Your task to perform on an android device: delete a single message in the gmail app Image 0: 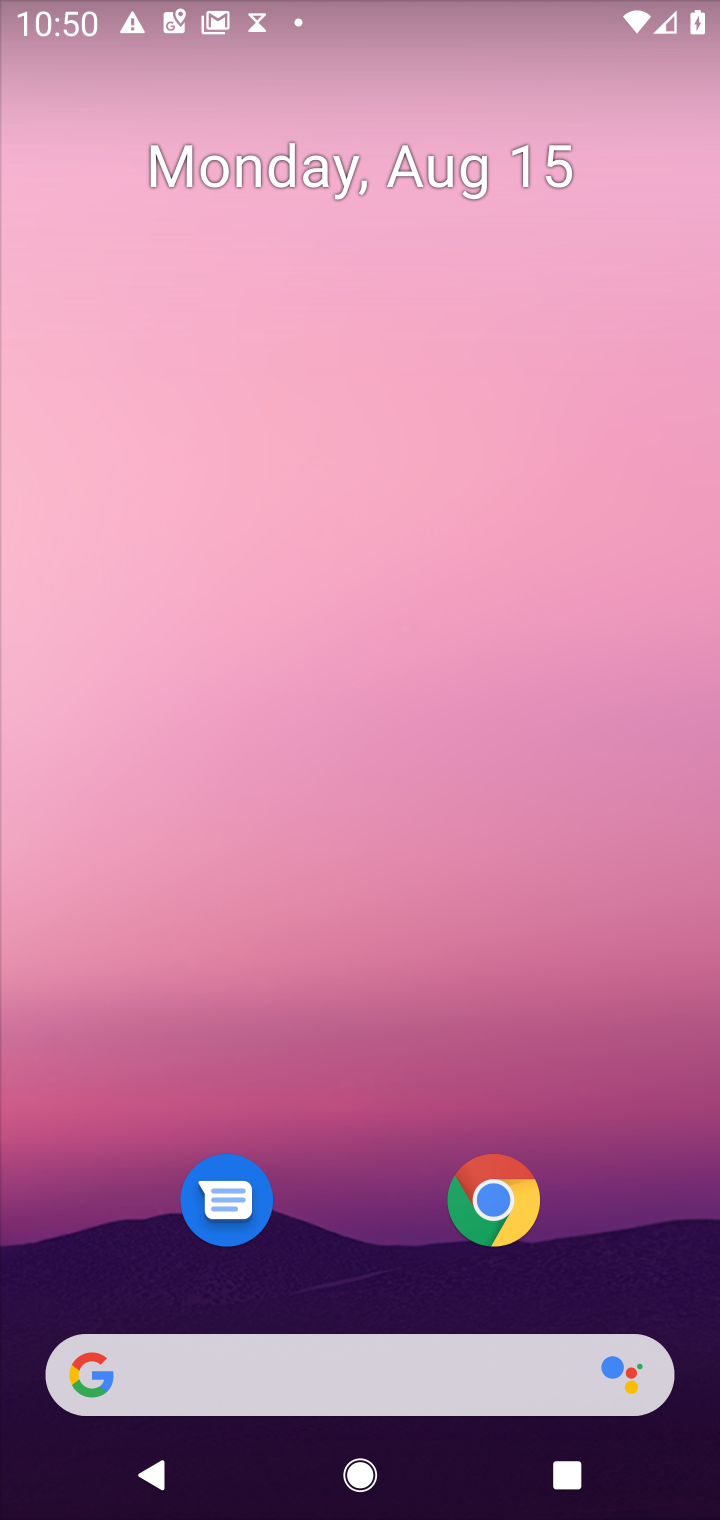
Step 0: drag from (322, 1110) to (291, 302)
Your task to perform on an android device: delete a single message in the gmail app Image 1: 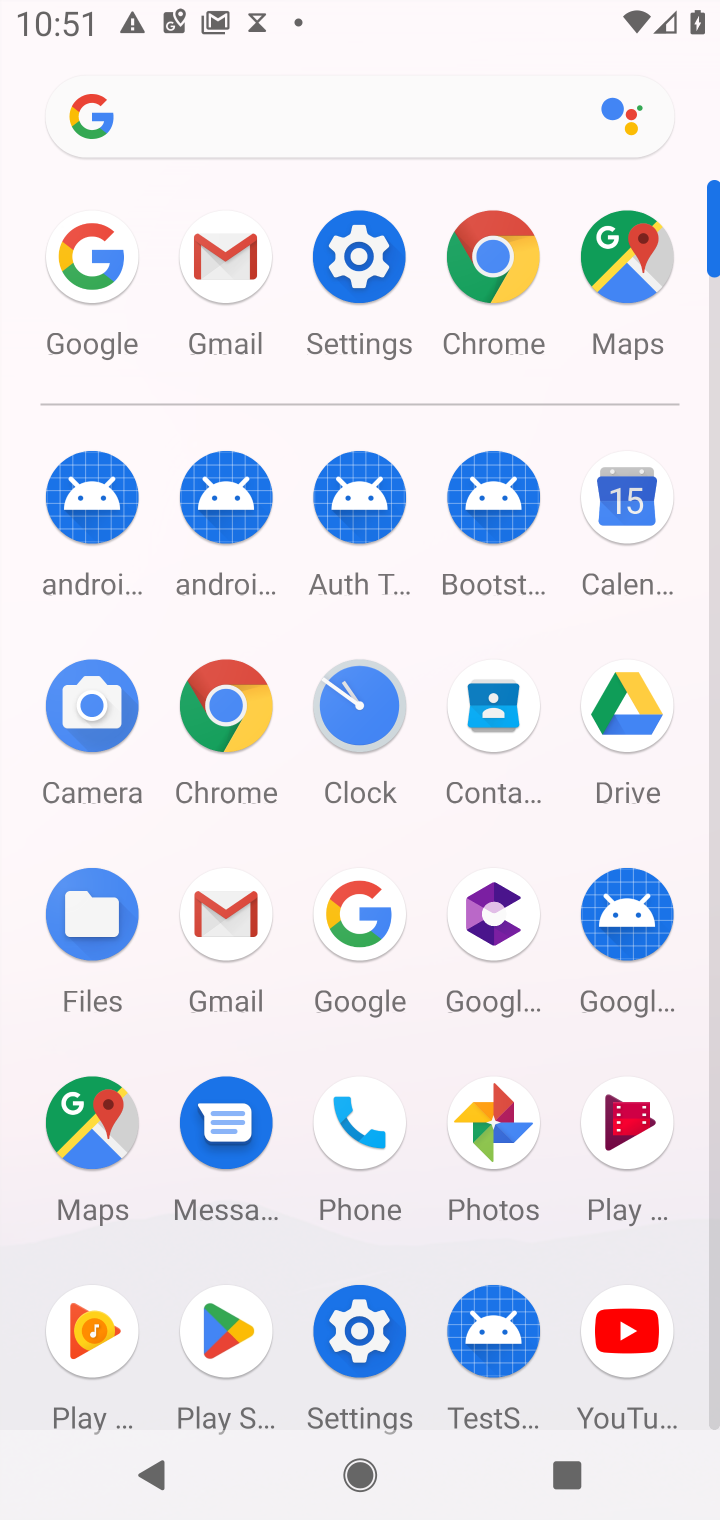
Step 1: click (206, 247)
Your task to perform on an android device: delete a single message in the gmail app Image 2: 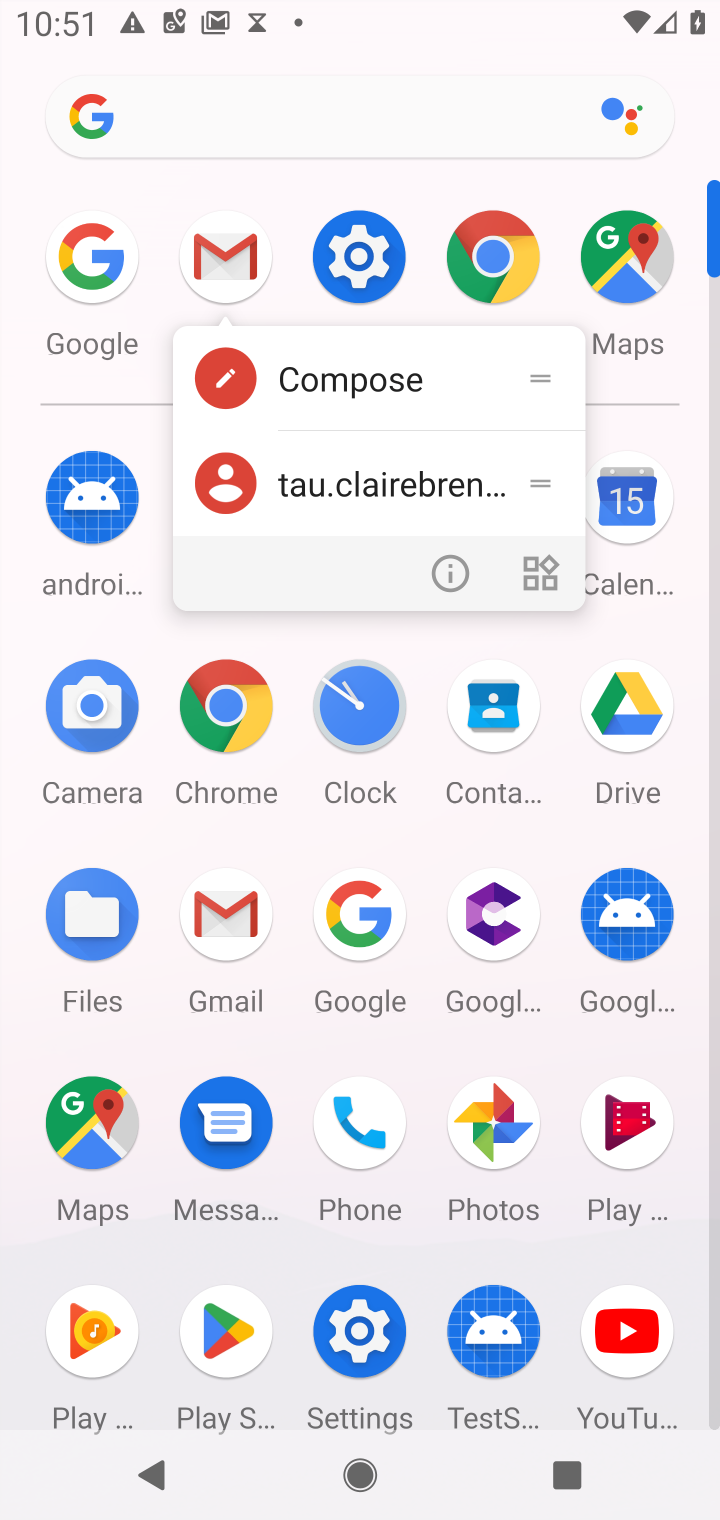
Step 2: click (248, 243)
Your task to perform on an android device: delete a single message in the gmail app Image 3: 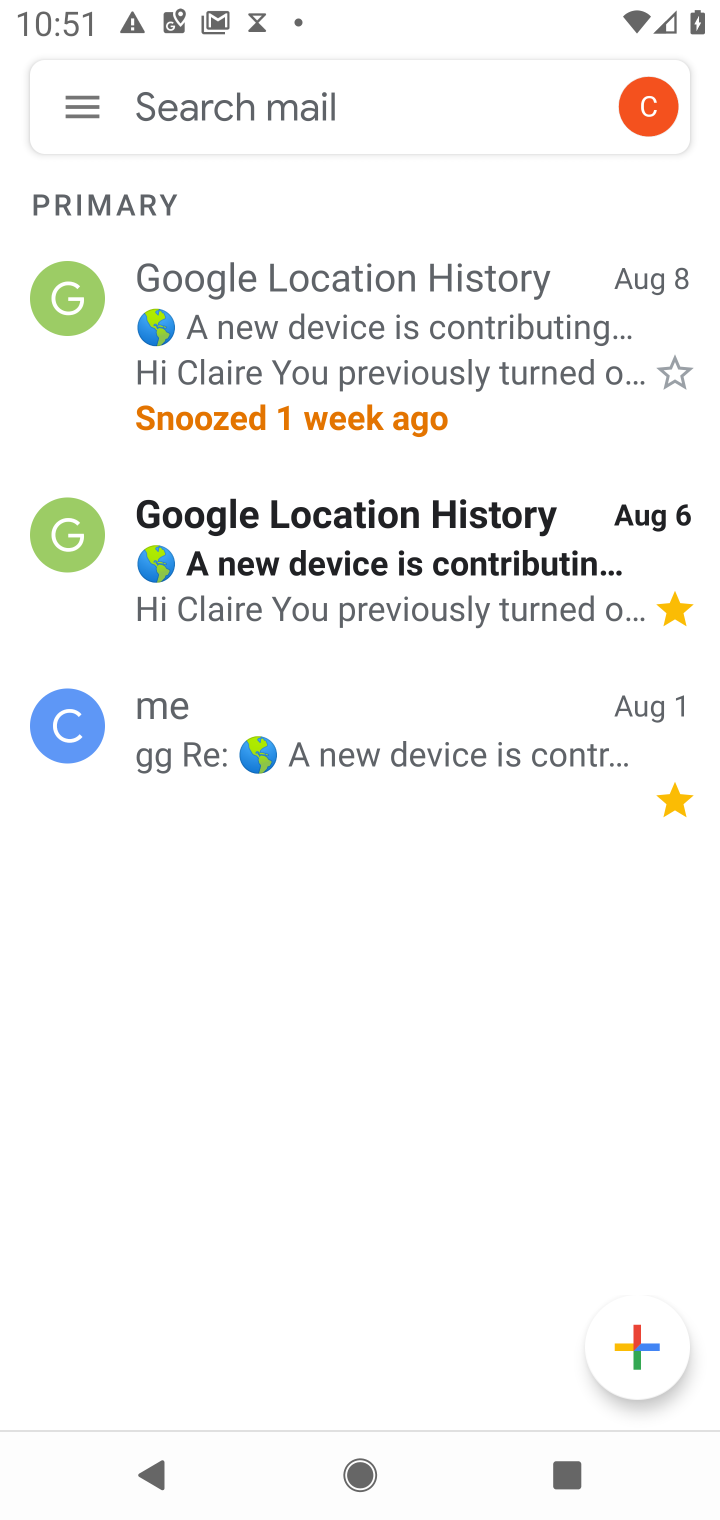
Step 3: click (273, 340)
Your task to perform on an android device: delete a single message in the gmail app Image 4: 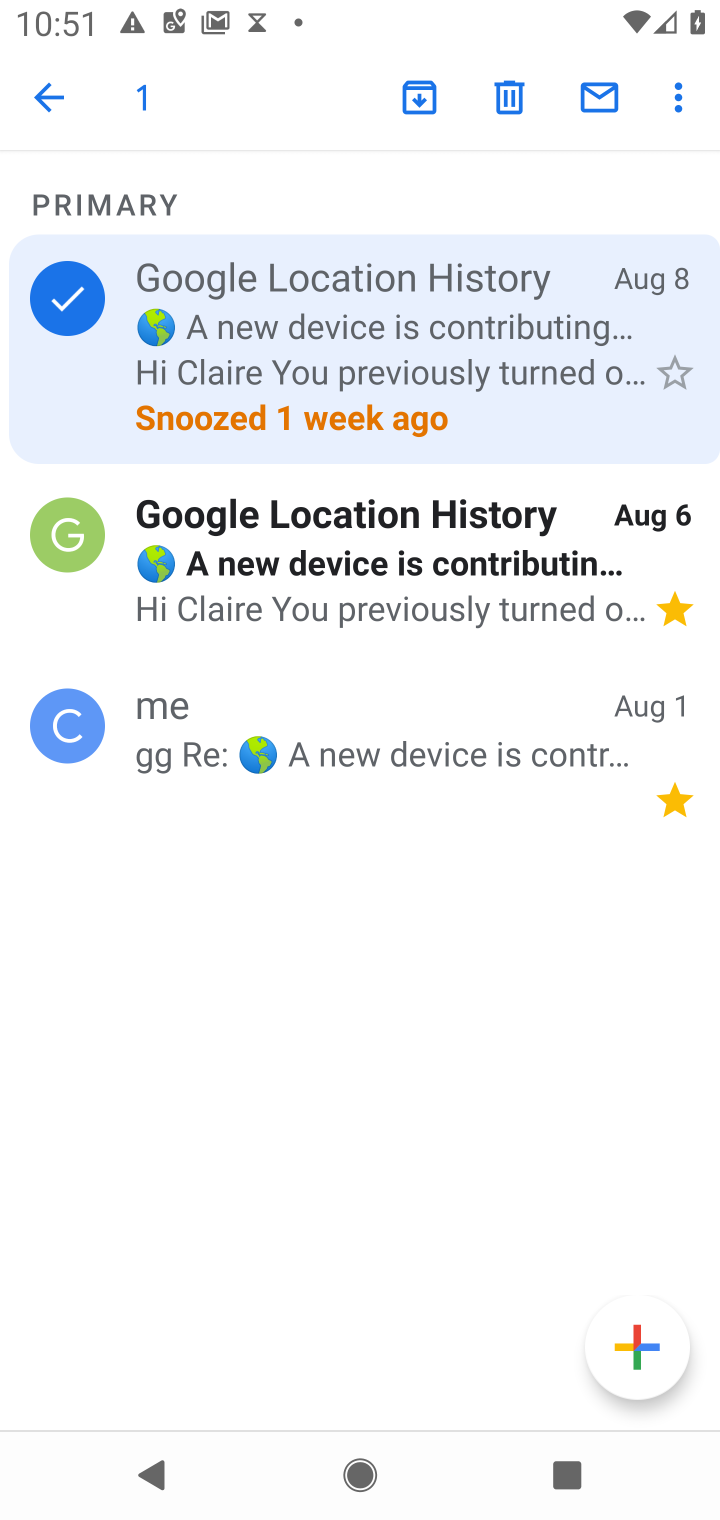
Step 4: click (494, 96)
Your task to perform on an android device: delete a single message in the gmail app Image 5: 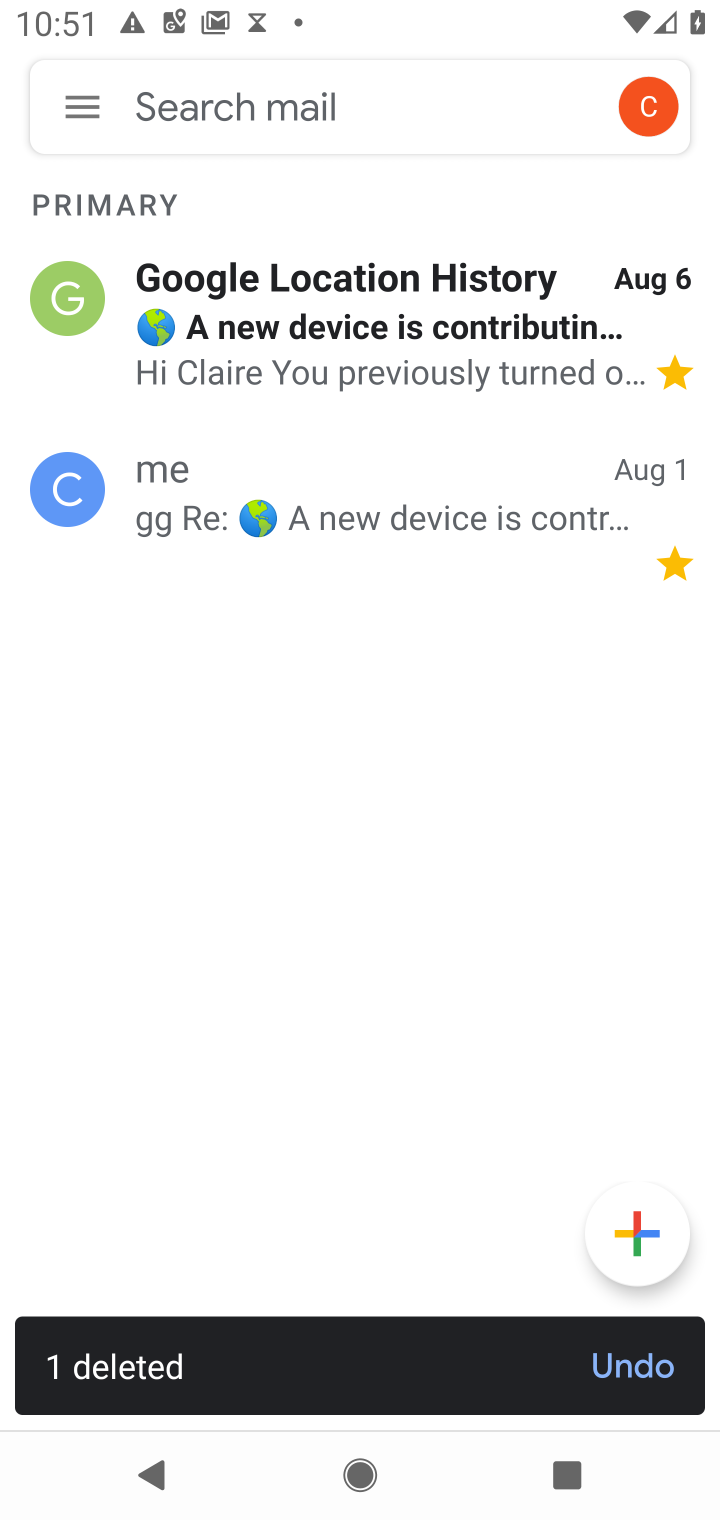
Step 5: task complete